Your task to perform on an android device: turn on translation in the chrome app Image 0: 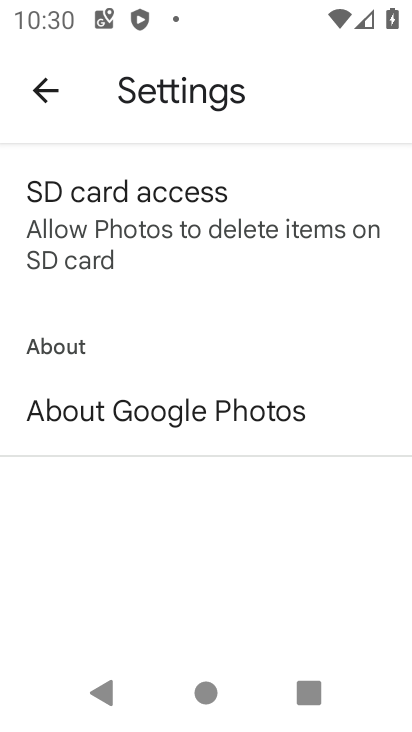
Step 0: press home button
Your task to perform on an android device: turn on translation in the chrome app Image 1: 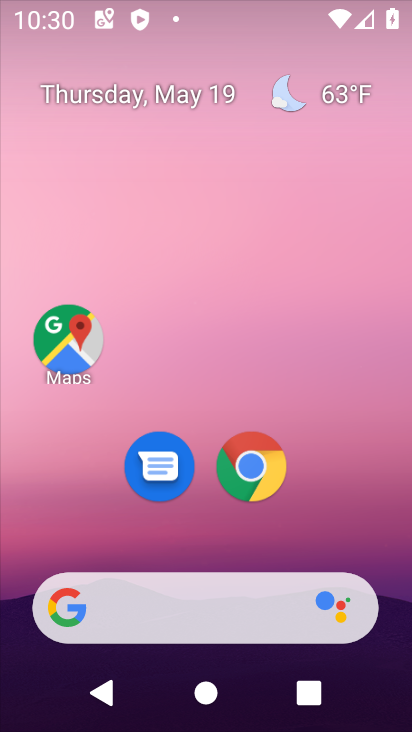
Step 1: drag from (386, 630) to (311, 40)
Your task to perform on an android device: turn on translation in the chrome app Image 2: 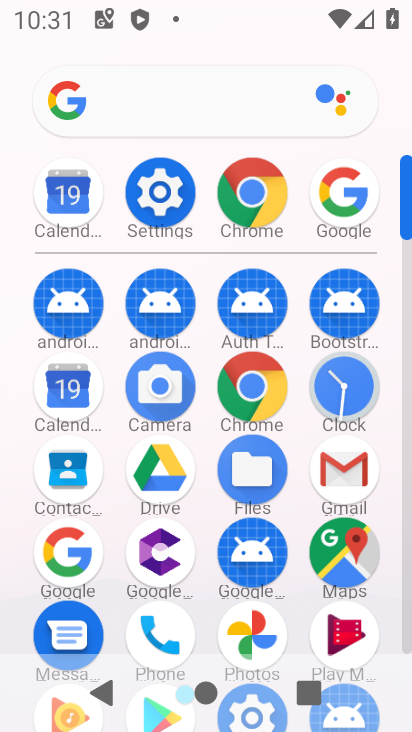
Step 2: click (247, 197)
Your task to perform on an android device: turn on translation in the chrome app Image 3: 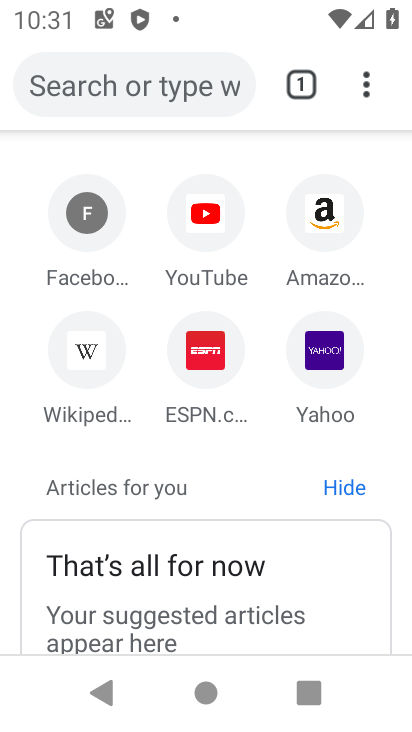
Step 3: click (370, 68)
Your task to perform on an android device: turn on translation in the chrome app Image 4: 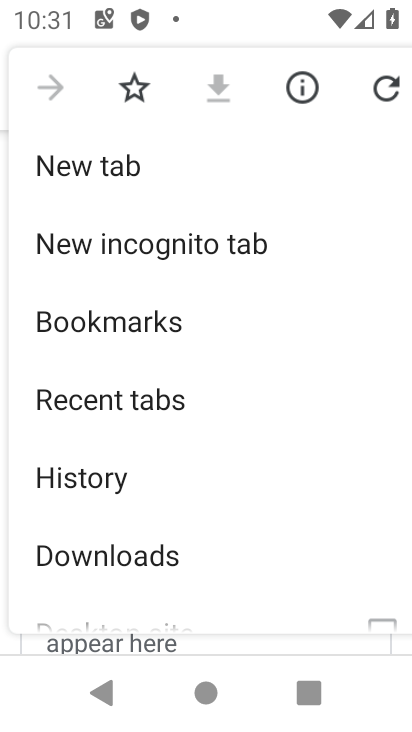
Step 4: drag from (129, 576) to (207, 98)
Your task to perform on an android device: turn on translation in the chrome app Image 5: 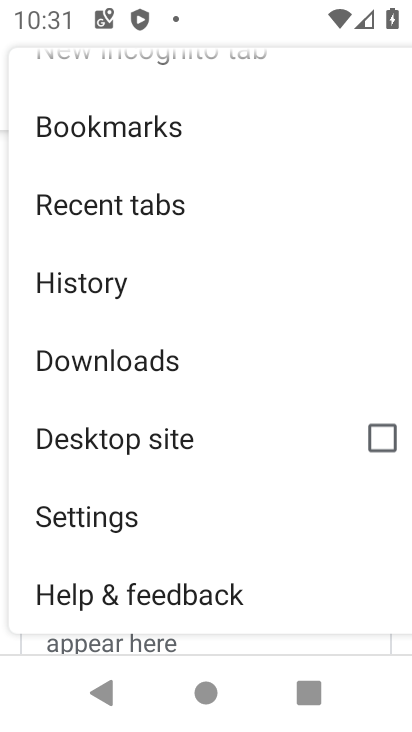
Step 5: click (112, 518)
Your task to perform on an android device: turn on translation in the chrome app Image 6: 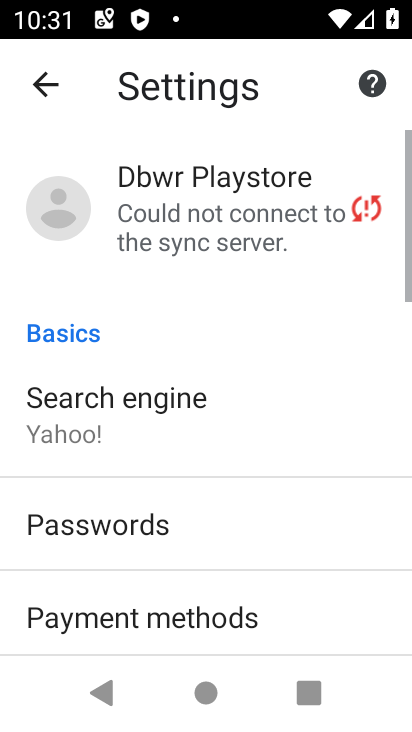
Step 6: drag from (113, 610) to (211, 125)
Your task to perform on an android device: turn on translation in the chrome app Image 7: 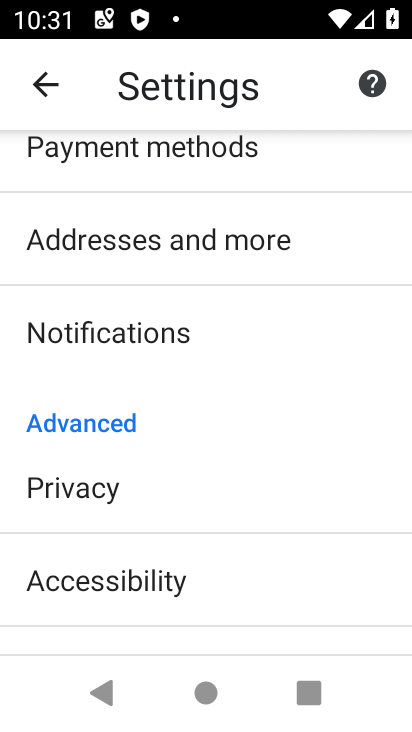
Step 7: drag from (223, 618) to (257, 210)
Your task to perform on an android device: turn on translation in the chrome app Image 8: 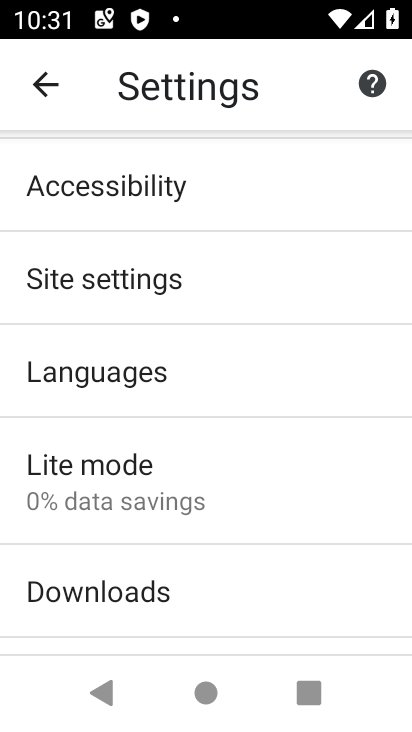
Step 8: click (160, 395)
Your task to perform on an android device: turn on translation in the chrome app Image 9: 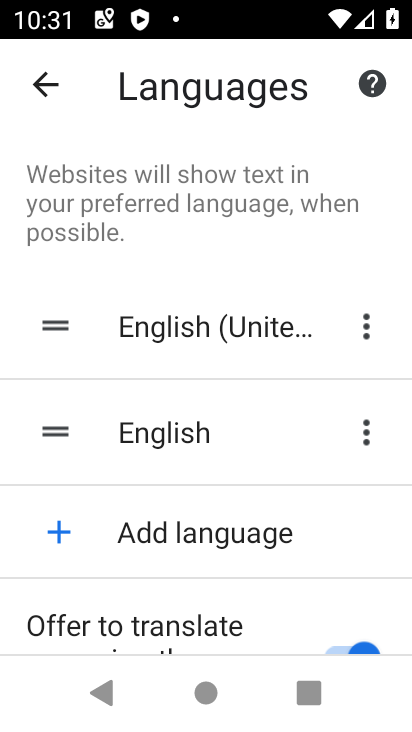
Step 9: task complete